Your task to perform on an android device: turn off wifi Image 0: 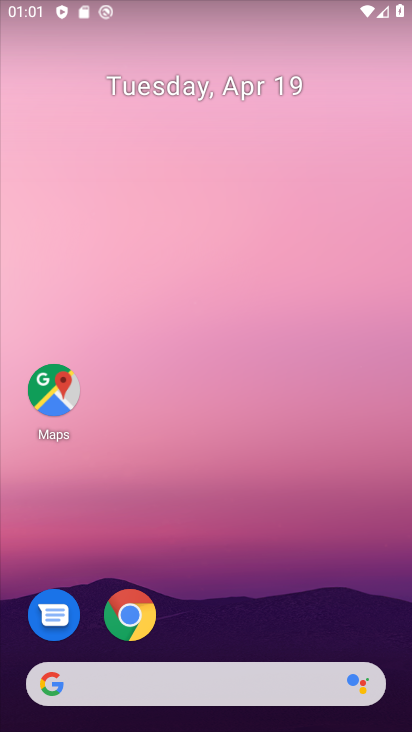
Step 0: drag from (284, 576) to (319, 168)
Your task to perform on an android device: turn off wifi Image 1: 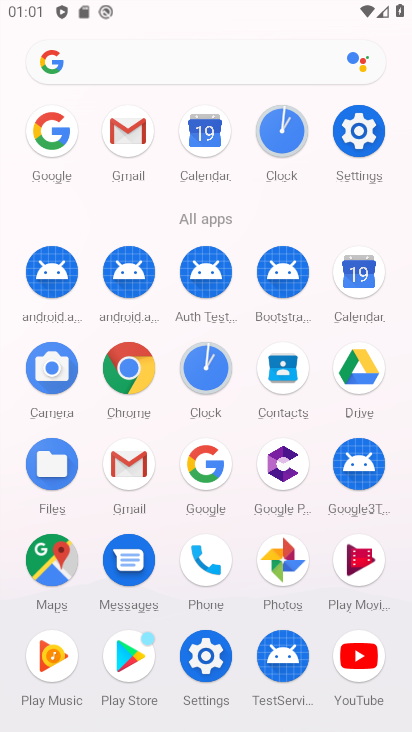
Step 1: click (369, 130)
Your task to perform on an android device: turn off wifi Image 2: 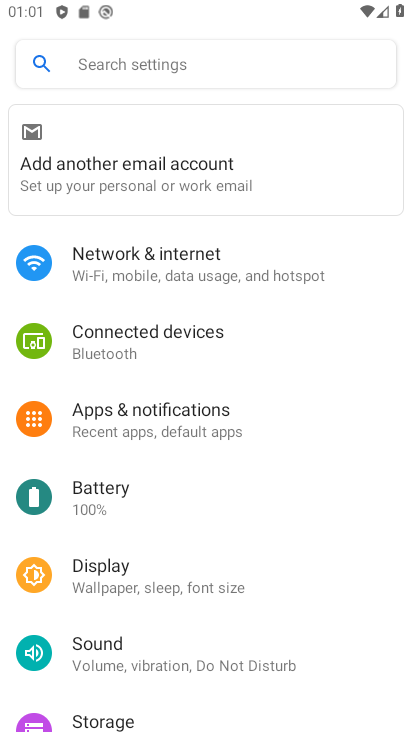
Step 2: click (202, 260)
Your task to perform on an android device: turn off wifi Image 3: 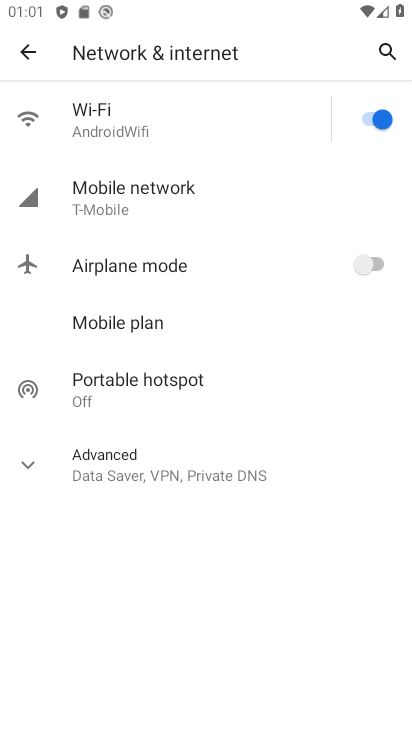
Step 3: click (371, 119)
Your task to perform on an android device: turn off wifi Image 4: 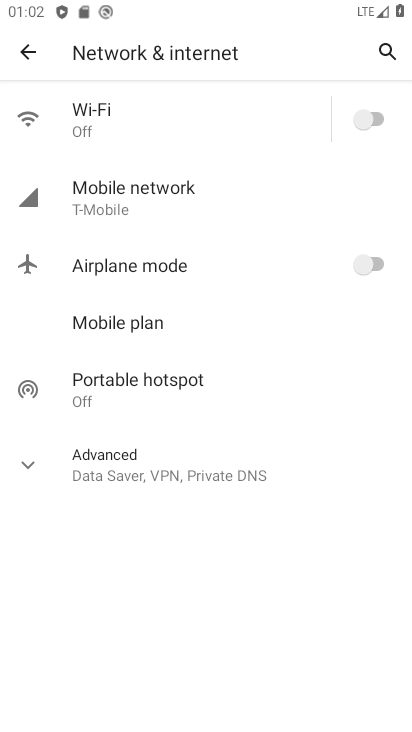
Step 4: task complete